Your task to perform on an android device: Toggle the flashlight Image 0: 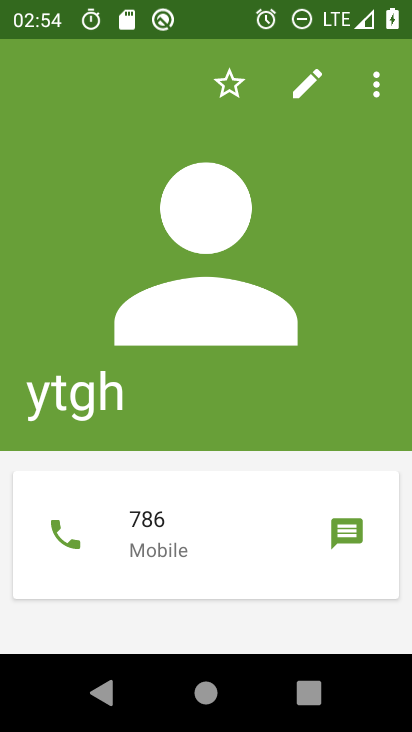
Step 0: press home button
Your task to perform on an android device: Toggle the flashlight Image 1: 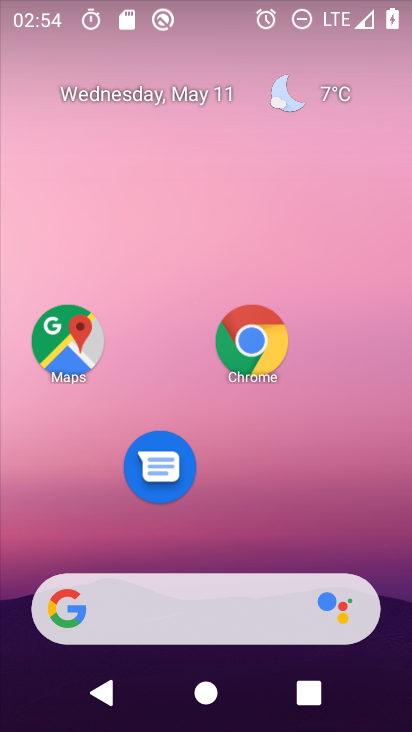
Step 1: task complete